Your task to perform on an android device: open app "Fetch Rewards" (install if not already installed) and enter user name: "Westwood@yahoo.com" and password: "qualifying" Image 0: 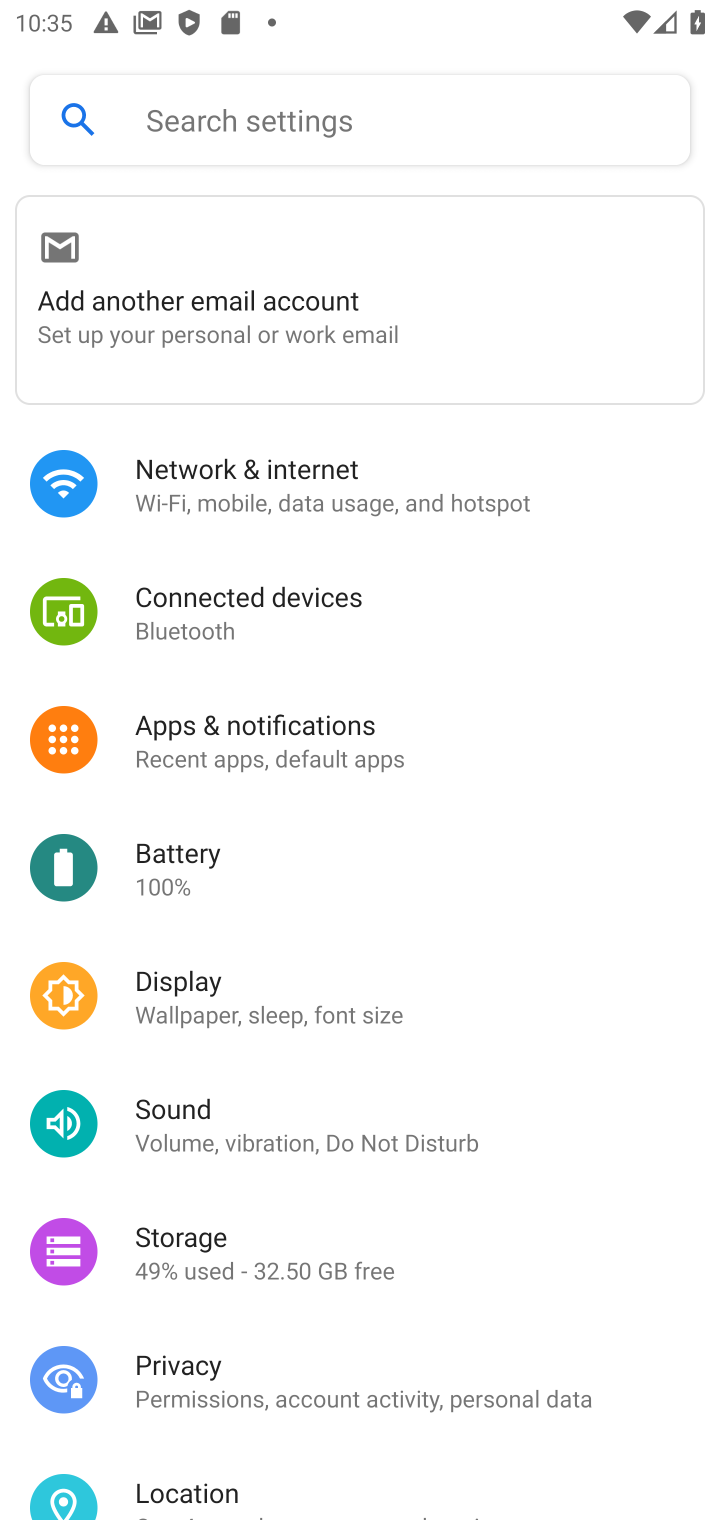
Step 0: press home button
Your task to perform on an android device: open app "Fetch Rewards" (install if not already installed) and enter user name: "Westwood@yahoo.com" and password: "qualifying" Image 1: 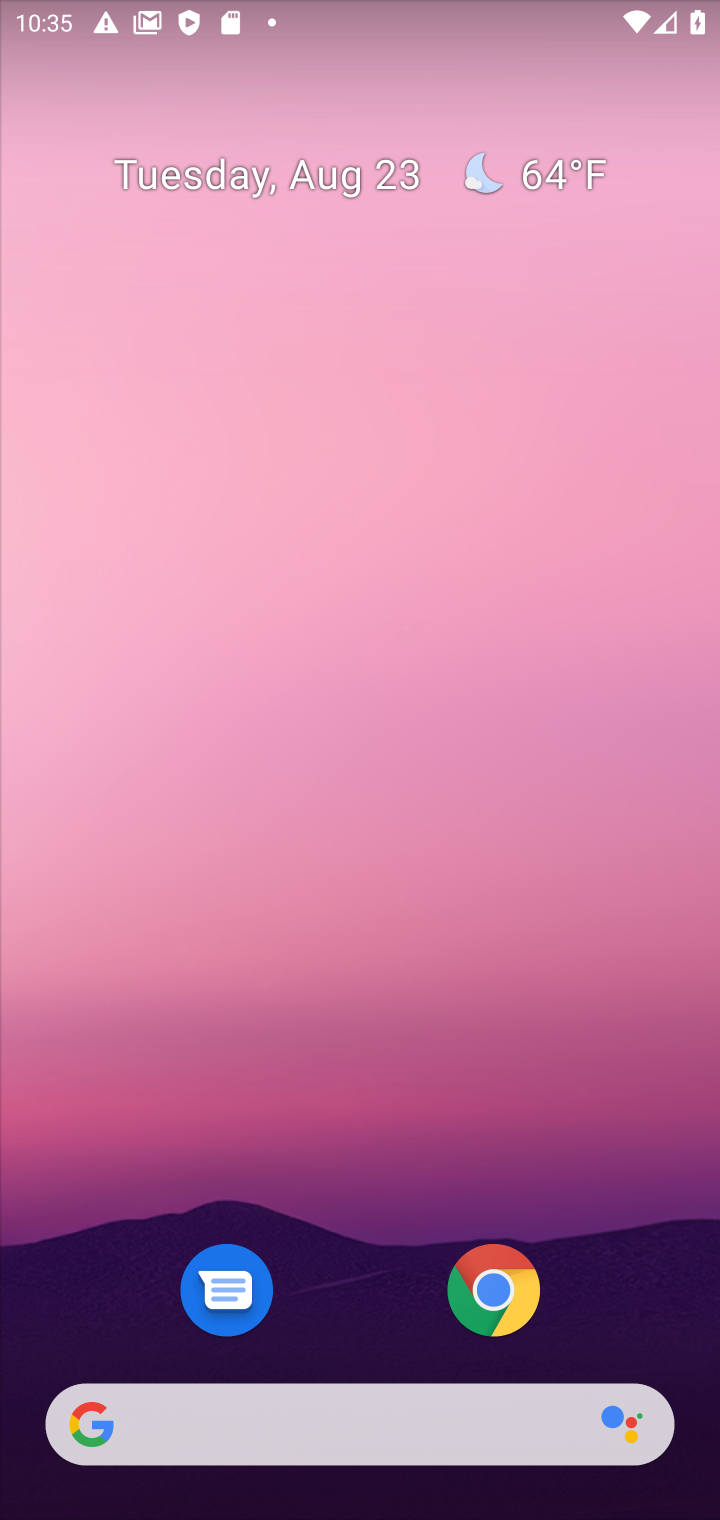
Step 1: drag from (333, 1037) to (295, 164)
Your task to perform on an android device: open app "Fetch Rewards" (install if not already installed) and enter user name: "Westwood@yahoo.com" and password: "qualifying" Image 2: 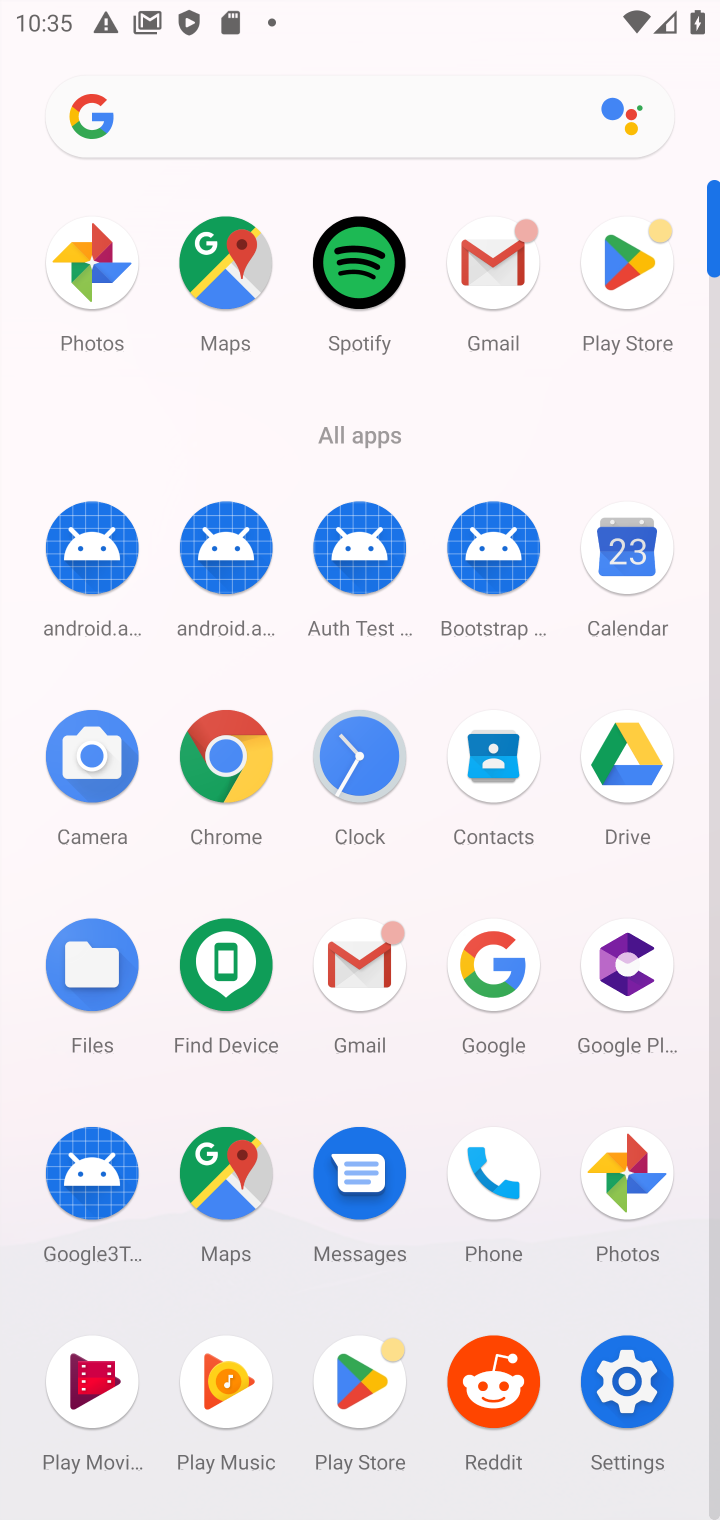
Step 2: click (629, 264)
Your task to perform on an android device: open app "Fetch Rewards" (install if not already installed) and enter user name: "Westwood@yahoo.com" and password: "qualifying" Image 3: 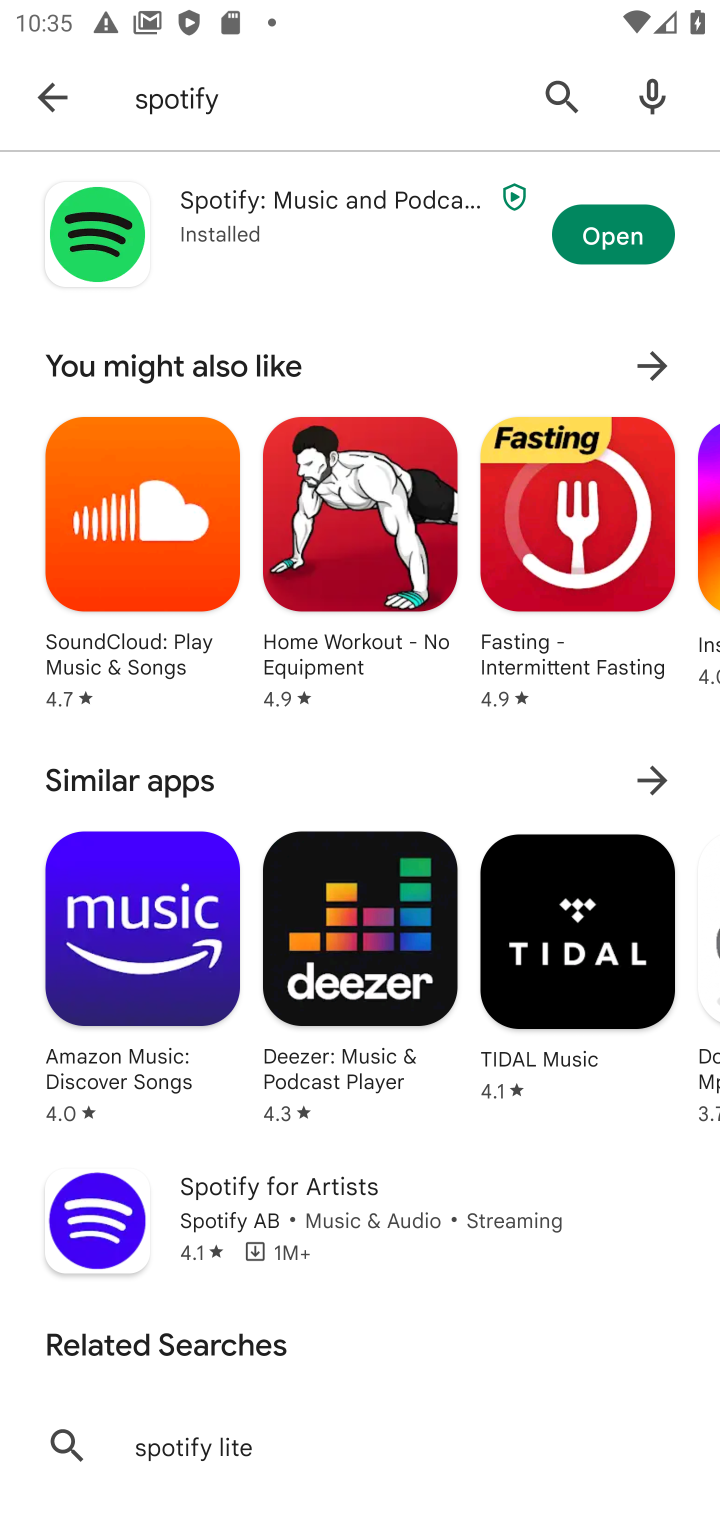
Step 3: click (555, 88)
Your task to perform on an android device: open app "Fetch Rewards" (install if not already installed) and enter user name: "Westwood@yahoo.com" and password: "qualifying" Image 4: 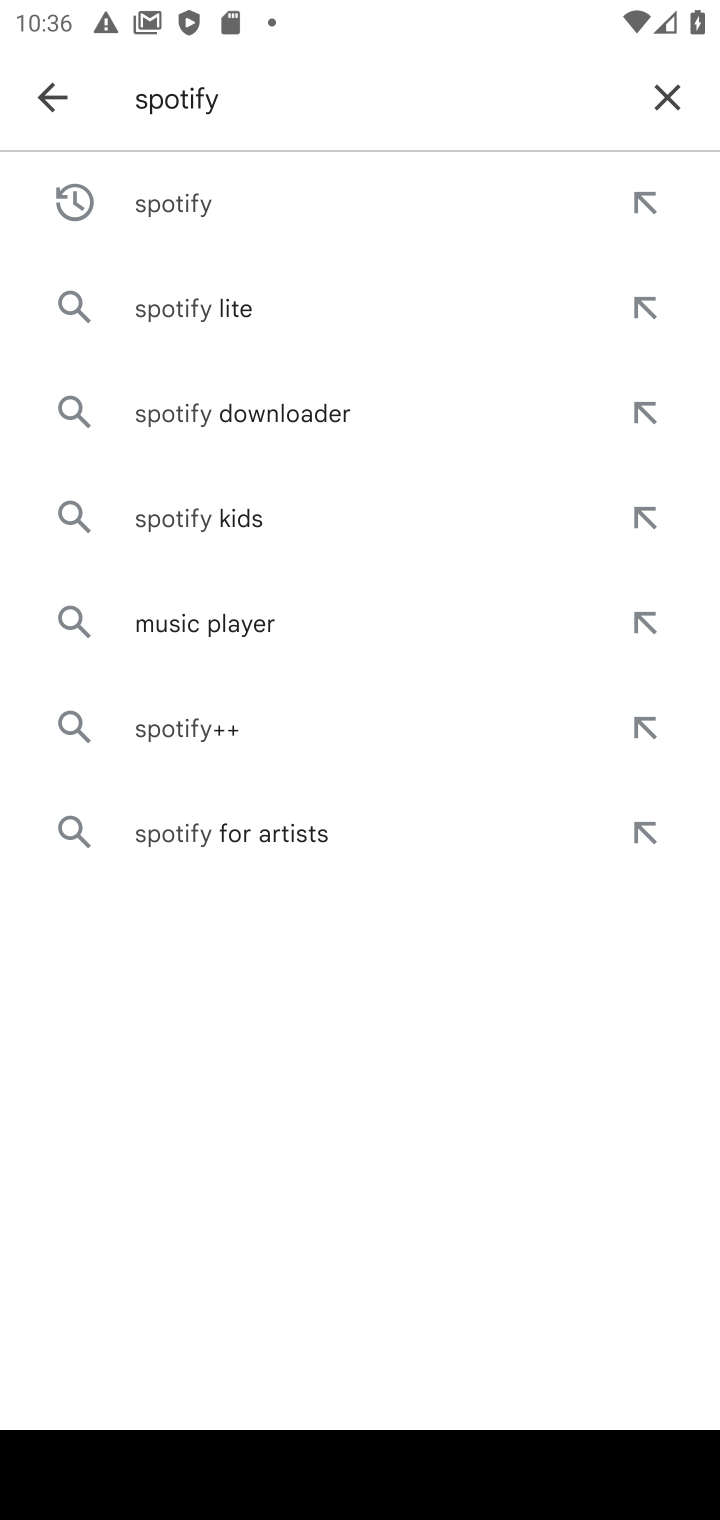
Step 4: click (669, 90)
Your task to perform on an android device: open app "Fetch Rewards" (install if not already installed) and enter user name: "Westwood@yahoo.com" and password: "qualifying" Image 5: 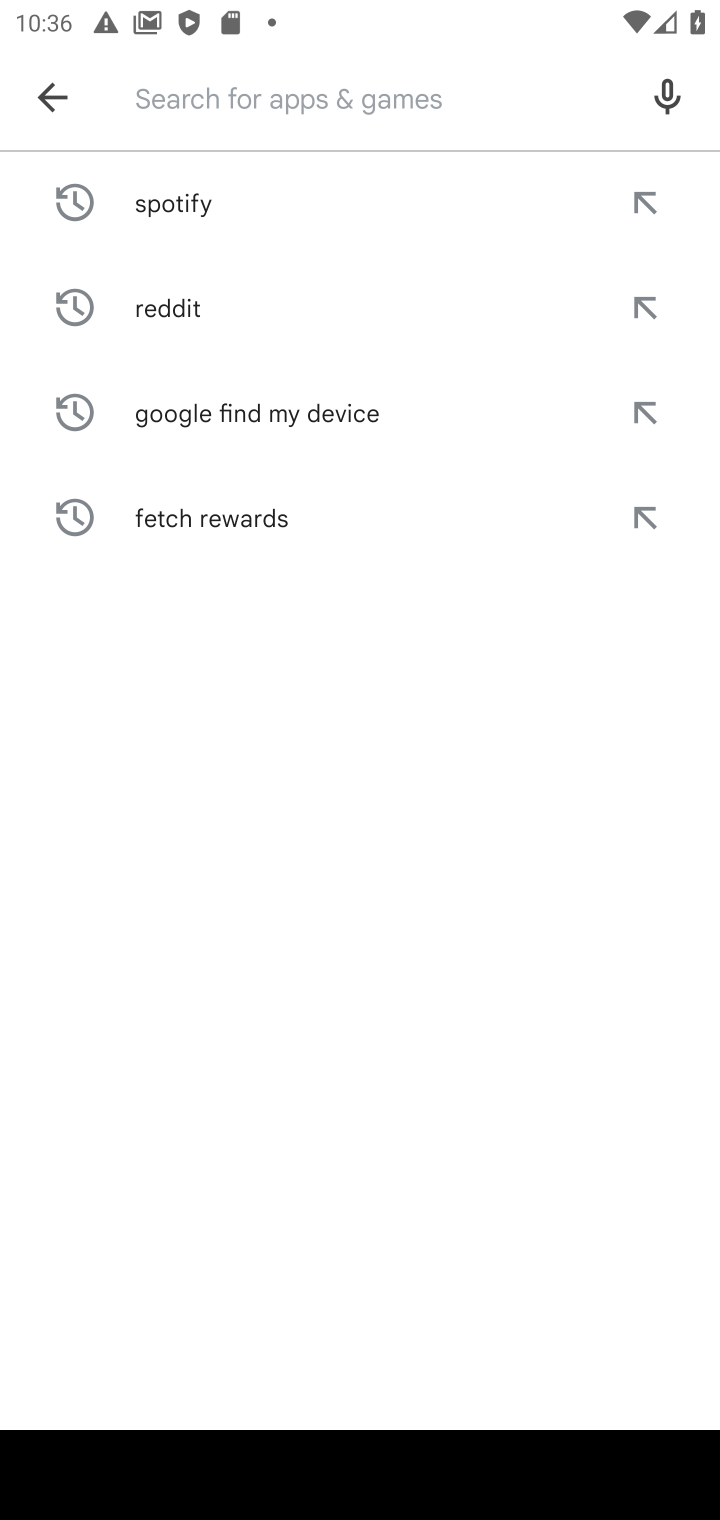
Step 5: type "Fetch Rewards"
Your task to perform on an android device: open app "Fetch Rewards" (install if not already installed) and enter user name: "Westwood@yahoo.com" and password: "qualifying" Image 6: 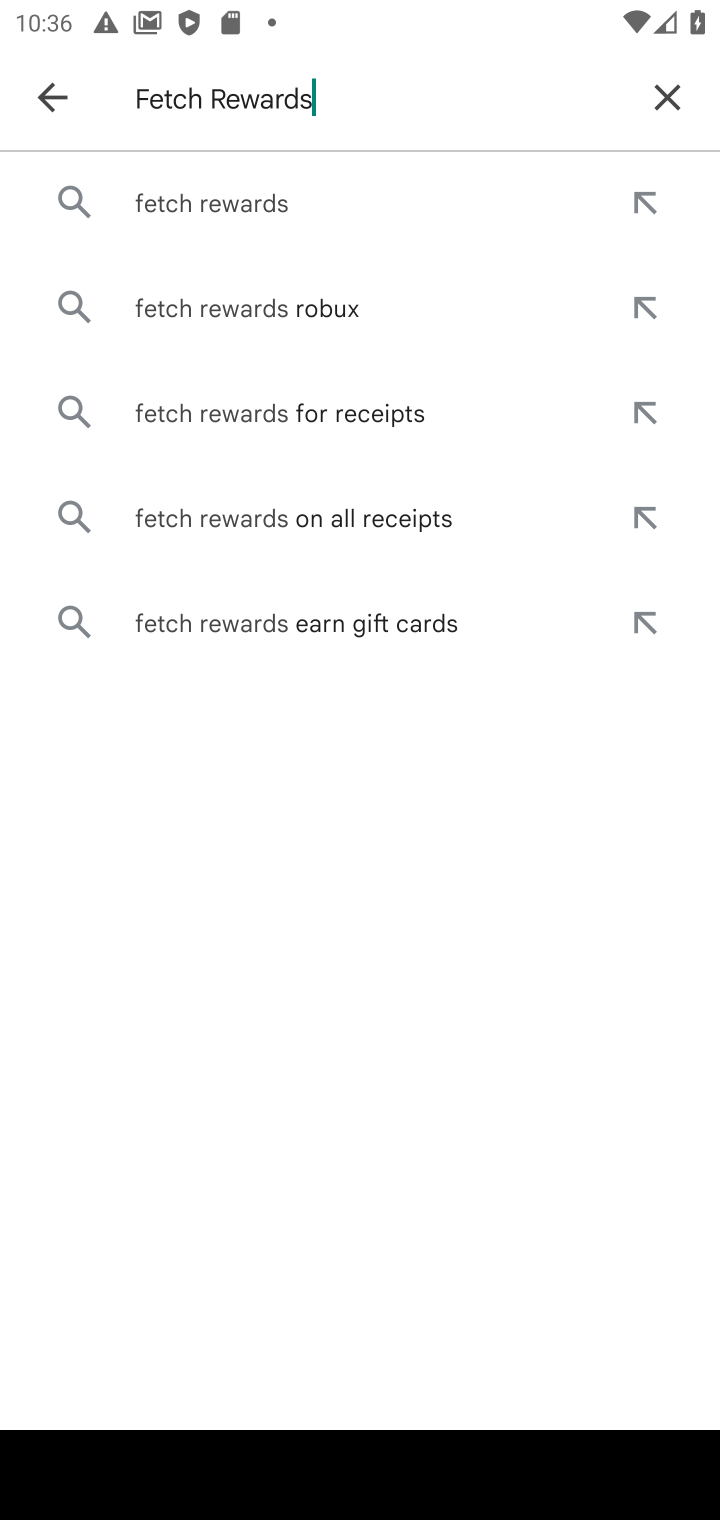
Step 6: click (208, 196)
Your task to perform on an android device: open app "Fetch Rewards" (install if not already installed) and enter user name: "Westwood@yahoo.com" and password: "qualifying" Image 7: 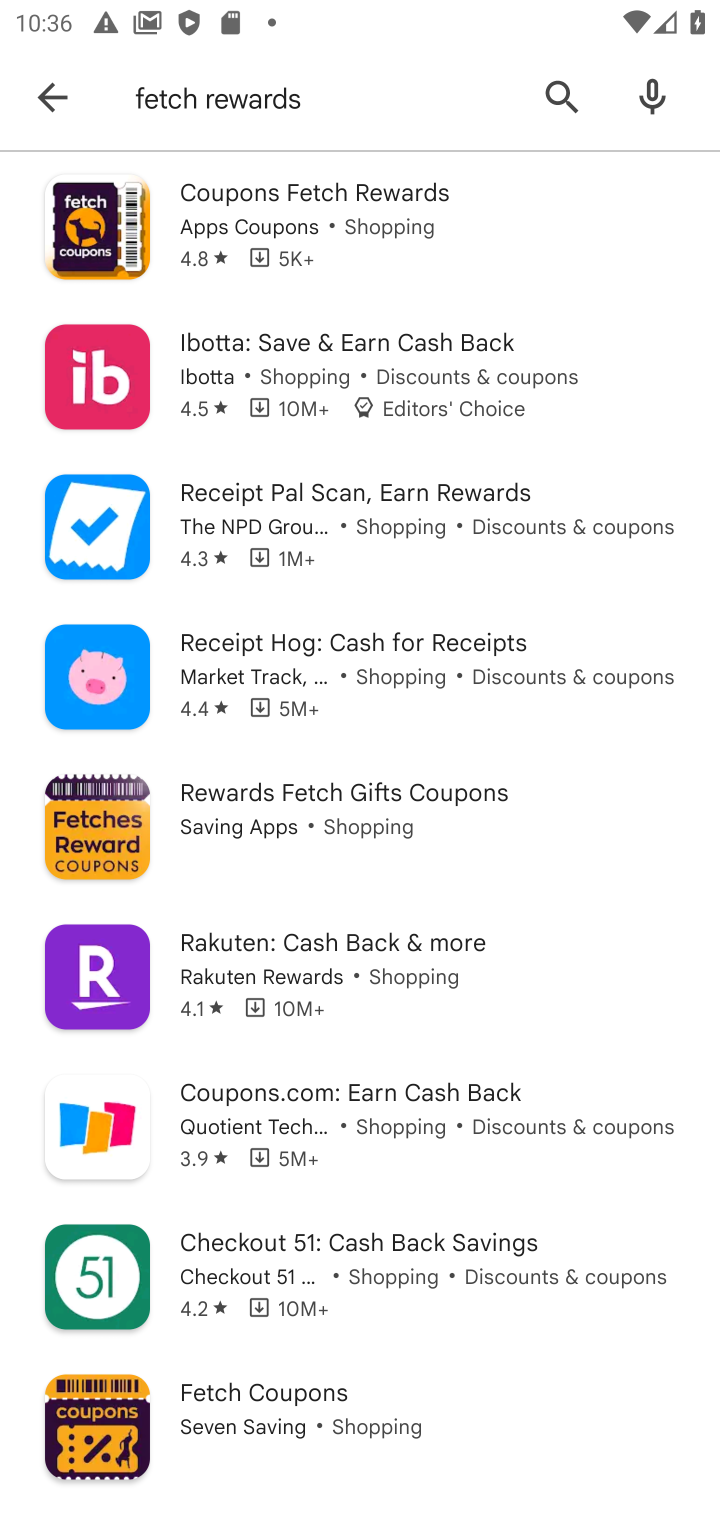
Step 7: task complete